Your task to perform on an android device: Open network settings Image 0: 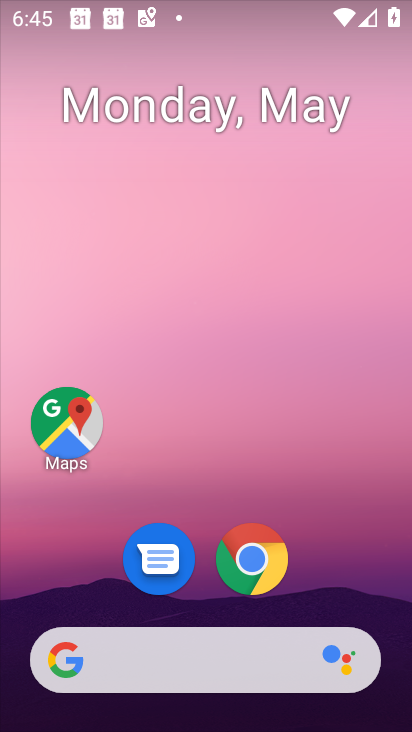
Step 0: drag from (397, 622) to (300, 244)
Your task to perform on an android device: Open network settings Image 1: 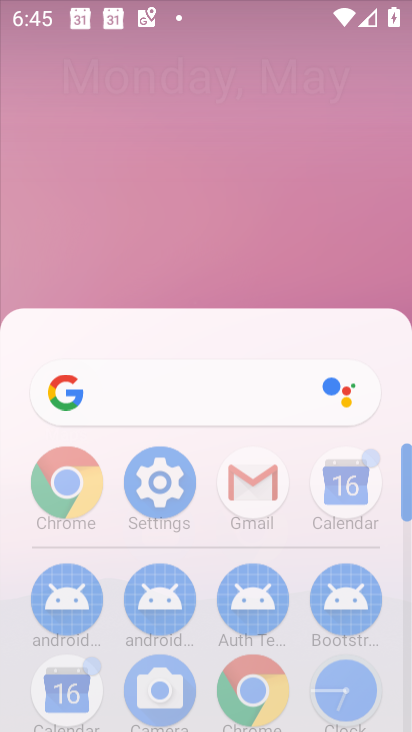
Step 1: click (250, 124)
Your task to perform on an android device: Open network settings Image 2: 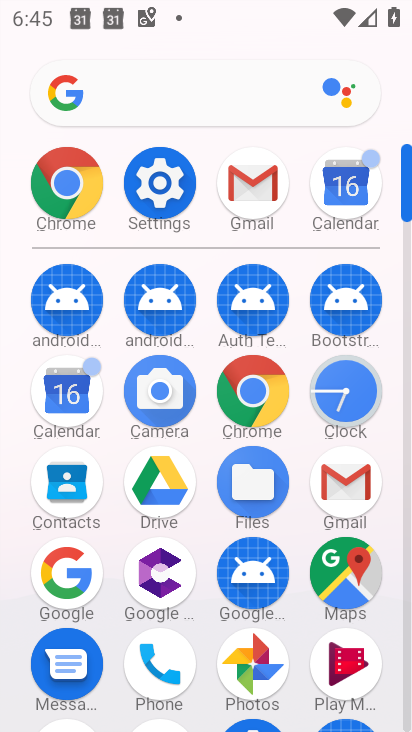
Step 2: click (157, 202)
Your task to perform on an android device: Open network settings Image 3: 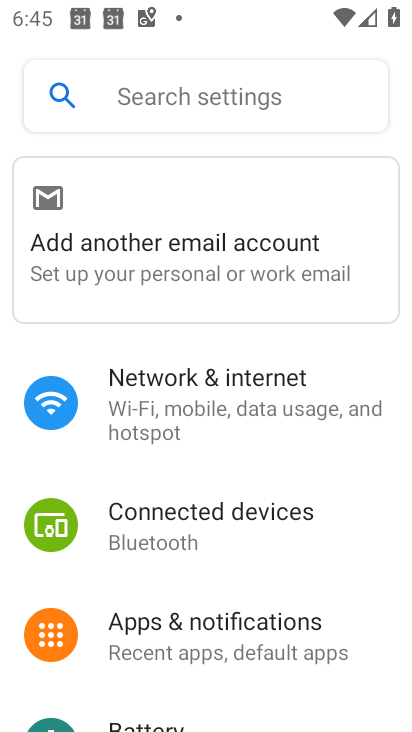
Step 3: click (195, 421)
Your task to perform on an android device: Open network settings Image 4: 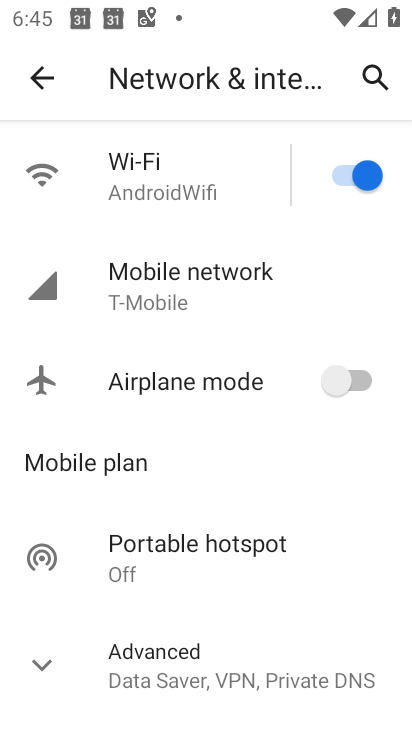
Step 4: task complete